Your task to perform on an android device: find photos in the google photos app Image 0: 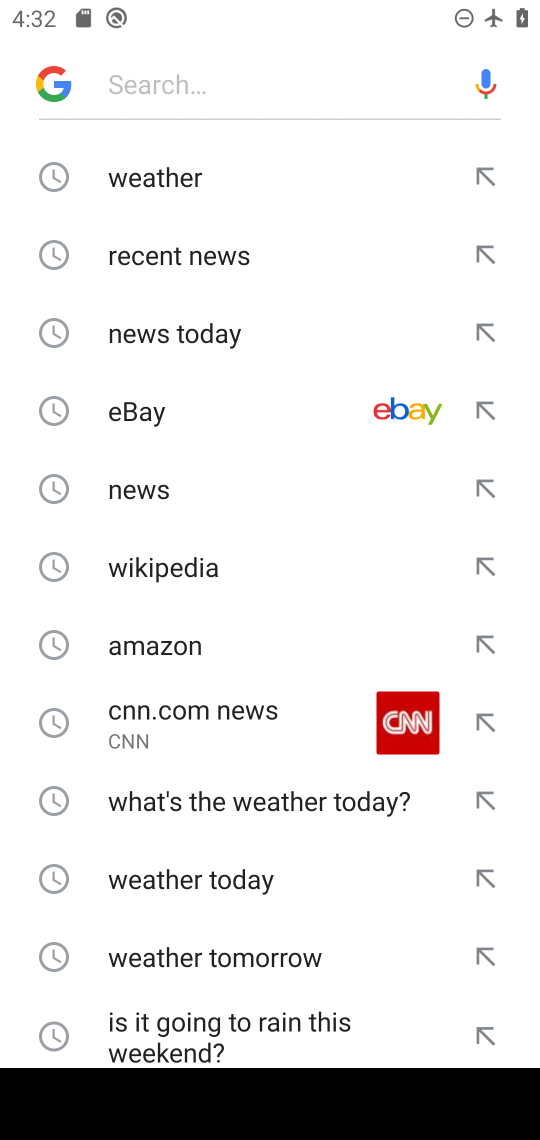
Step 0: press home button
Your task to perform on an android device: find photos in the google photos app Image 1: 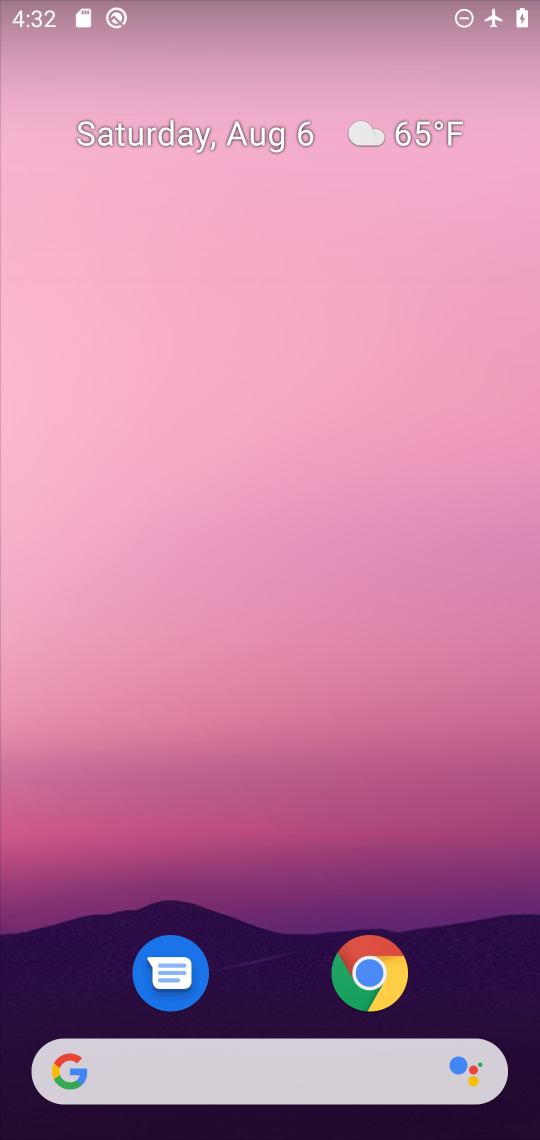
Step 1: drag from (263, 904) to (315, 26)
Your task to perform on an android device: find photos in the google photos app Image 2: 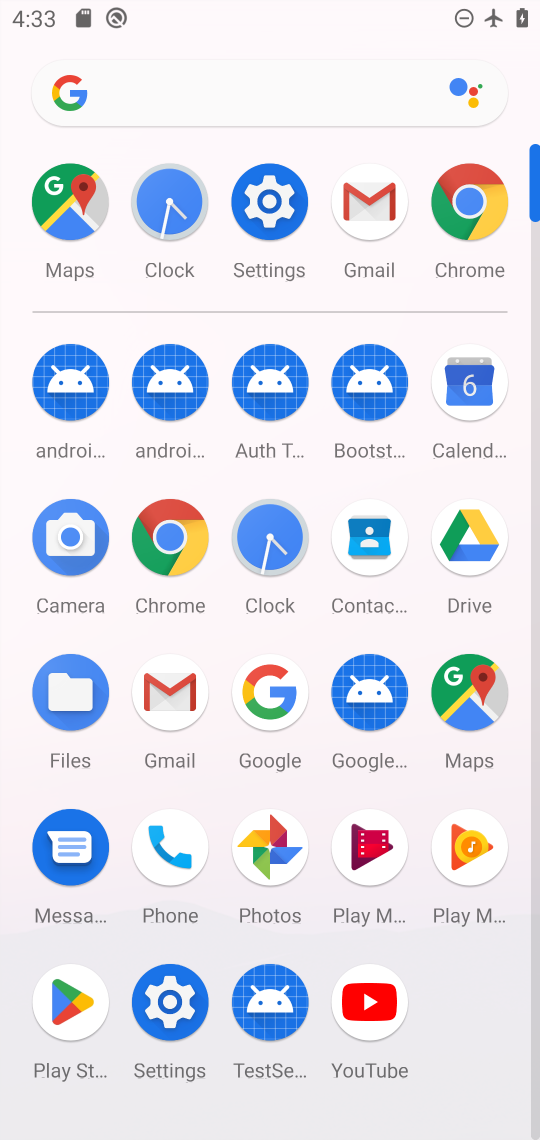
Step 2: click (266, 839)
Your task to perform on an android device: find photos in the google photos app Image 3: 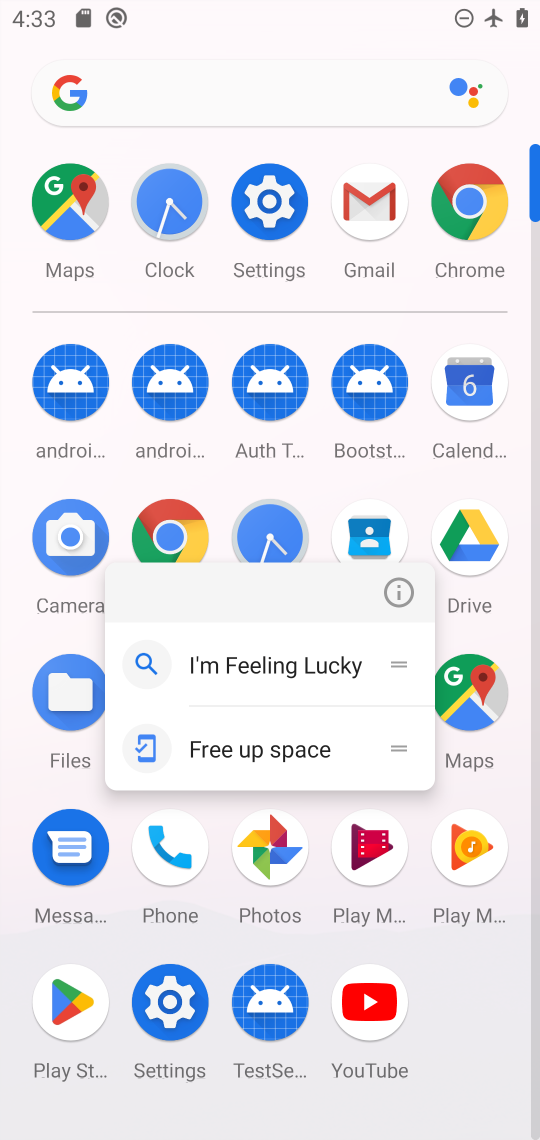
Step 3: click (263, 850)
Your task to perform on an android device: find photos in the google photos app Image 4: 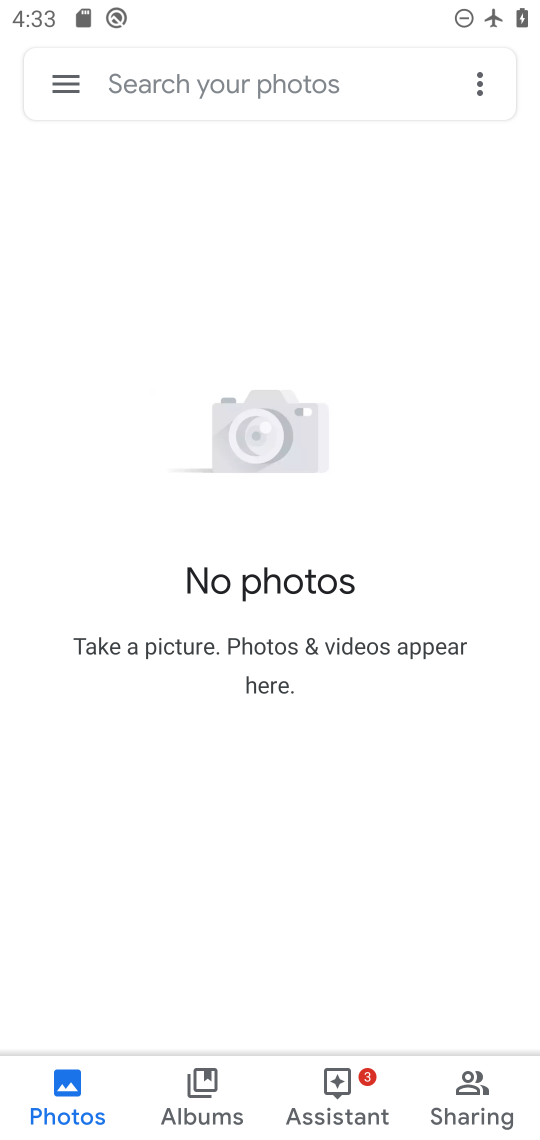
Step 4: task complete